Your task to perform on an android device: Do I have any events today? Image 0: 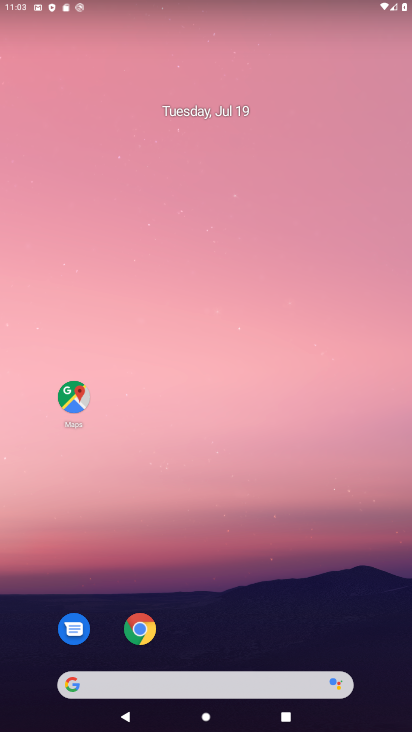
Step 0: drag from (275, 310) to (264, 56)
Your task to perform on an android device: Do I have any events today? Image 1: 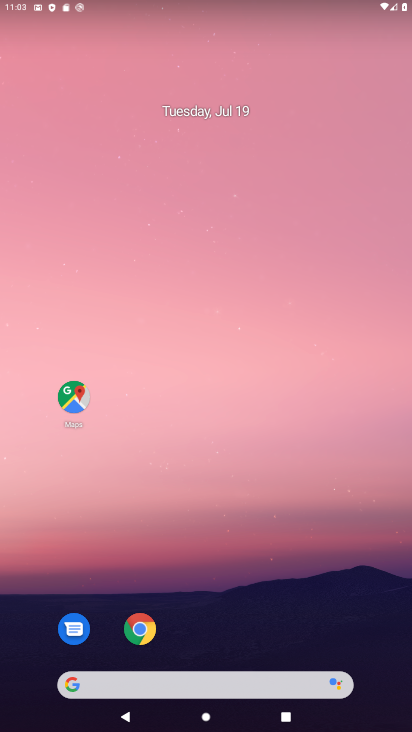
Step 1: drag from (312, 631) to (259, 0)
Your task to perform on an android device: Do I have any events today? Image 2: 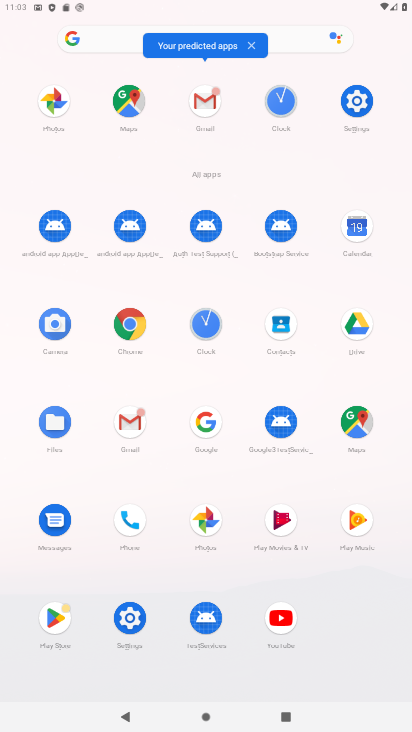
Step 2: click (364, 218)
Your task to perform on an android device: Do I have any events today? Image 3: 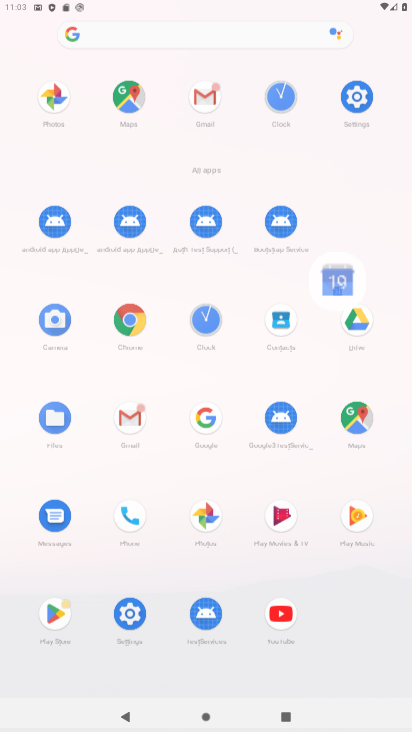
Step 3: click (364, 227)
Your task to perform on an android device: Do I have any events today? Image 4: 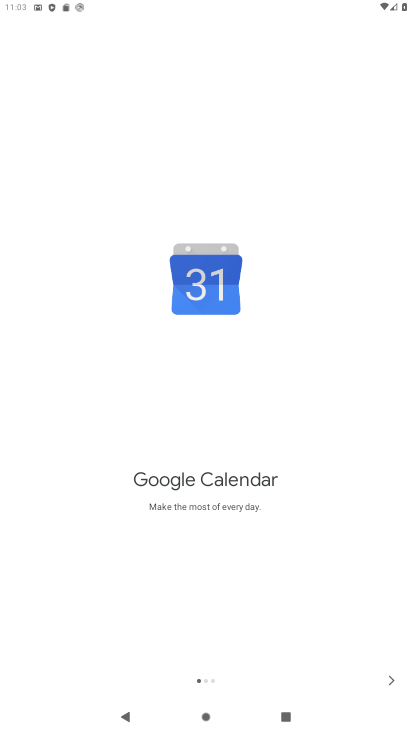
Step 4: click (391, 683)
Your task to perform on an android device: Do I have any events today? Image 5: 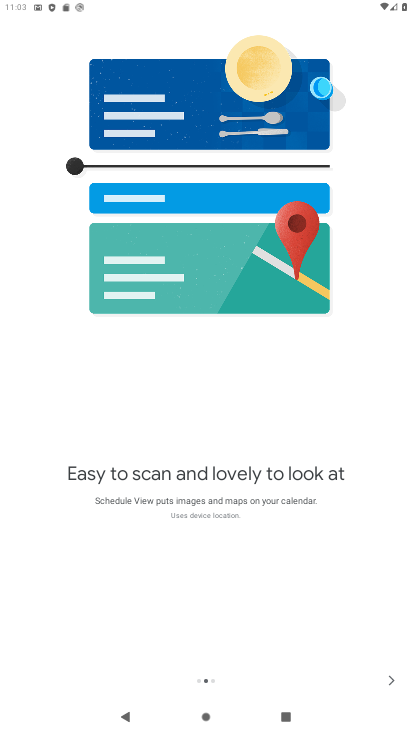
Step 5: click (391, 681)
Your task to perform on an android device: Do I have any events today? Image 6: 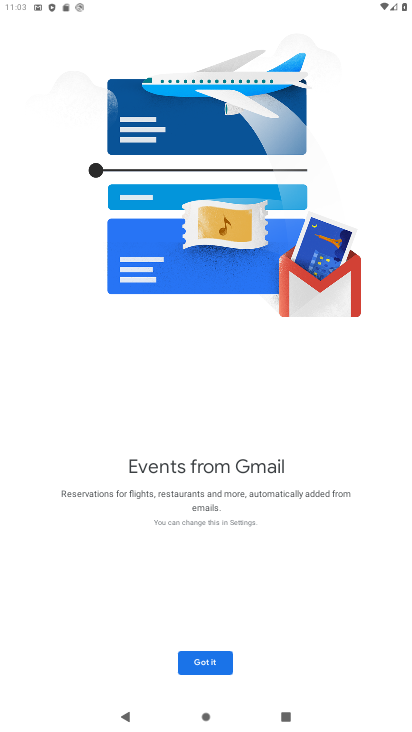
Step 6: click (194, 650)
Your task to perform on an android device: Do I have any events today? Image 7: 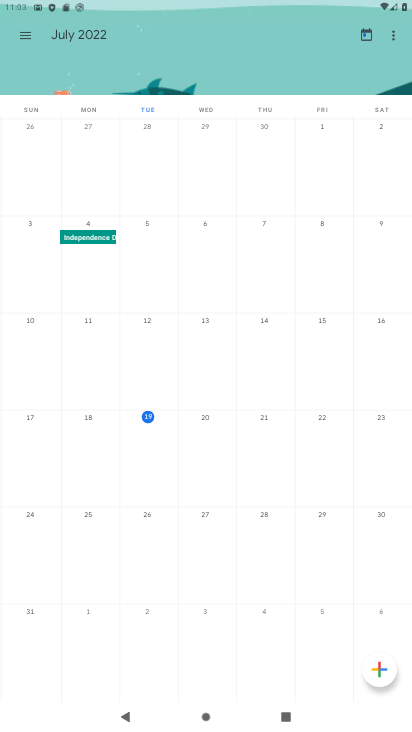
Step 7: click (144, 414)
Your task to perform on an android device: Do I have any events today? Image 8: 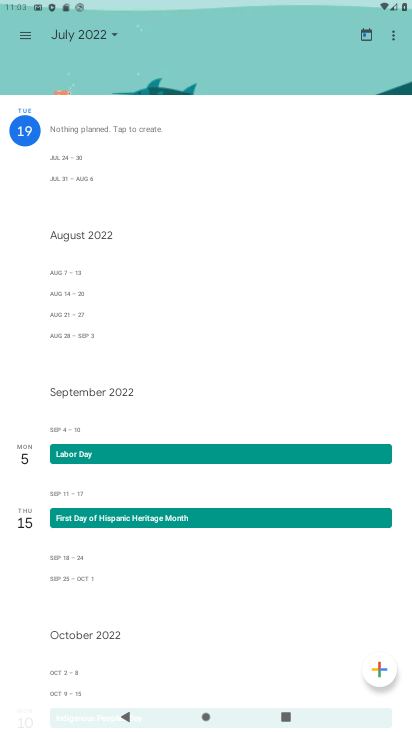
Step 8: task complete